Your task to perform on an android device: Add usb-a to the cart on target.com Image 0: 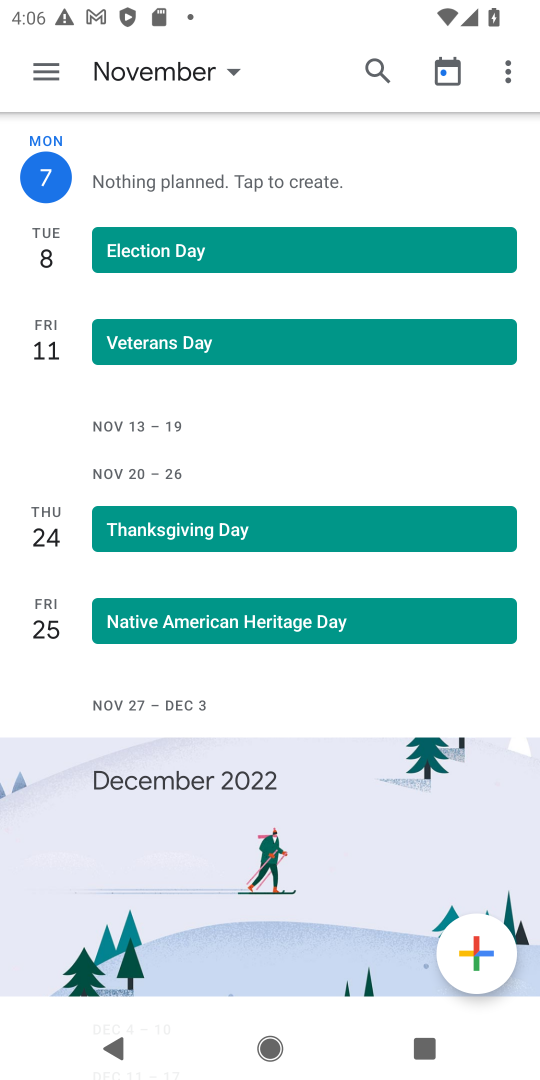
Step 0: press home button
Your task to perform on an android device: Add usb-a to the cart on target.com Image 1: 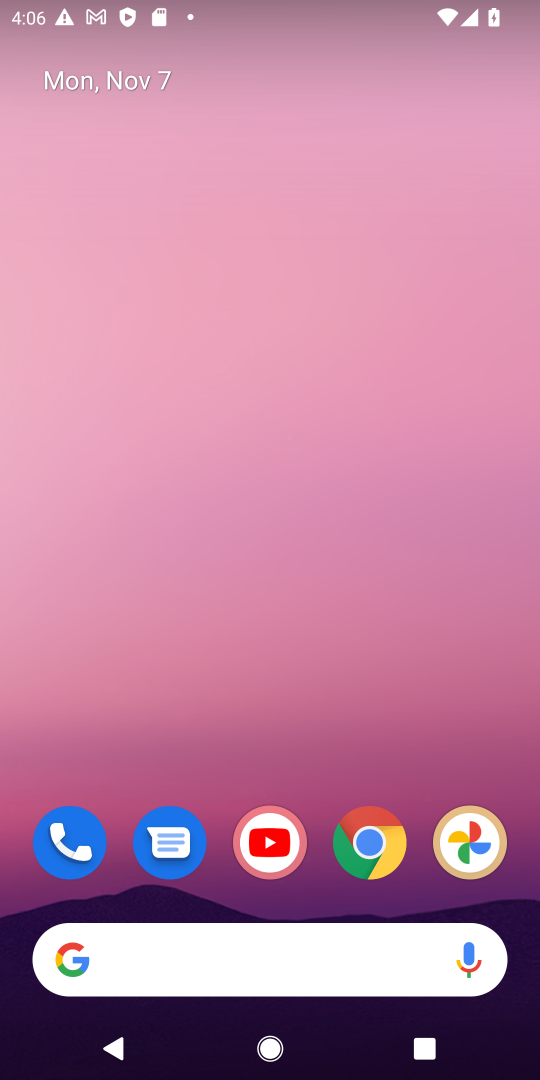
Step 1: drag from (248, 926) to (277, 60)
Your task to perform on an android device: Add usb-a to the cart on target.com Image 2: 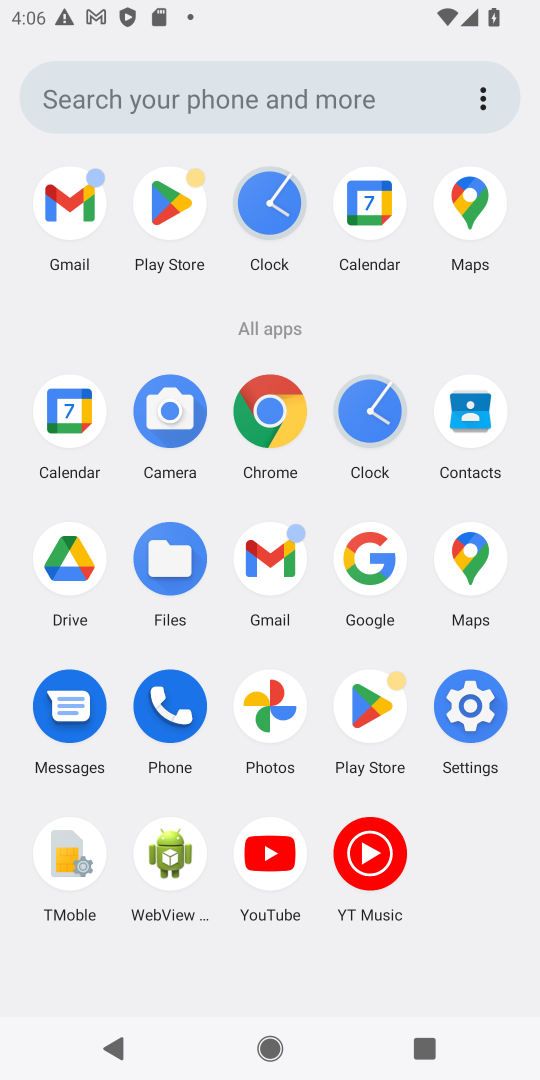
Step 2: click (283, 425)
Your task to perform on an android device: Add usb-a to the cart on target.com Image 3: 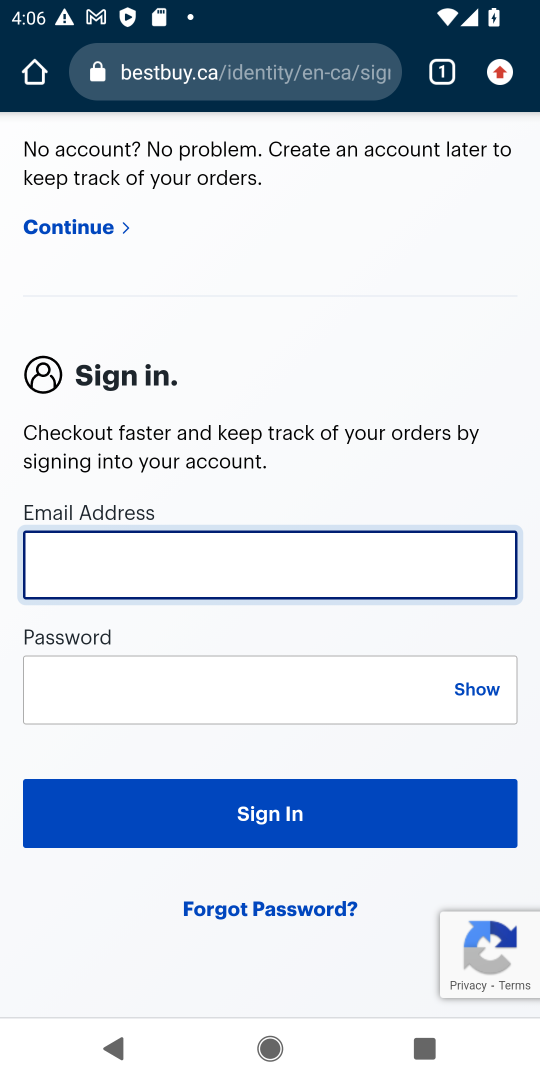
Step 3: click (213, 72)
Your task to perform on an android device: Add usb-a to the cart on target.com Image 4: 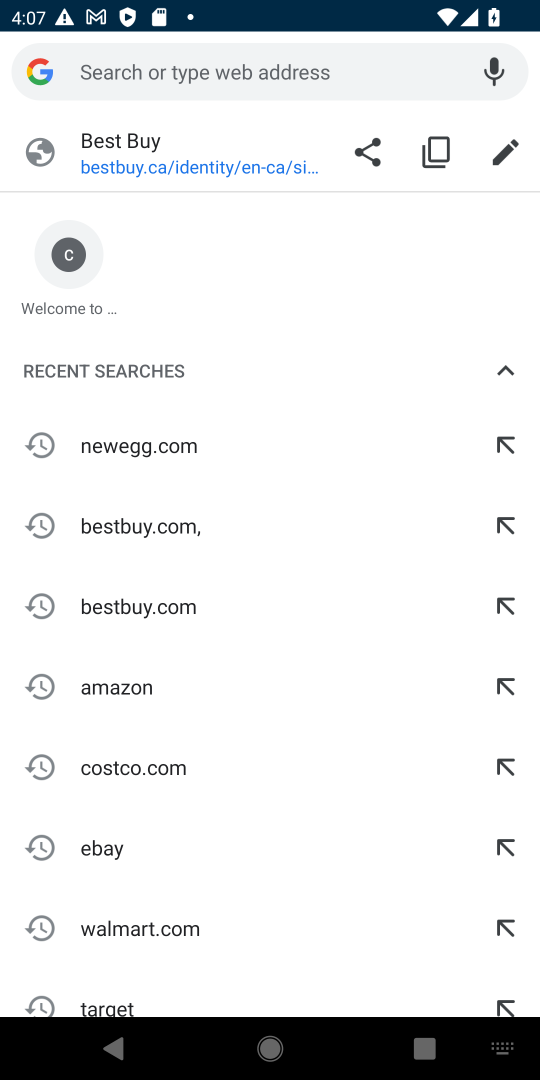
Step 4: type "target.com"
Your task to perform on an android device: Add usb-a to the cart on target.com Image 5: 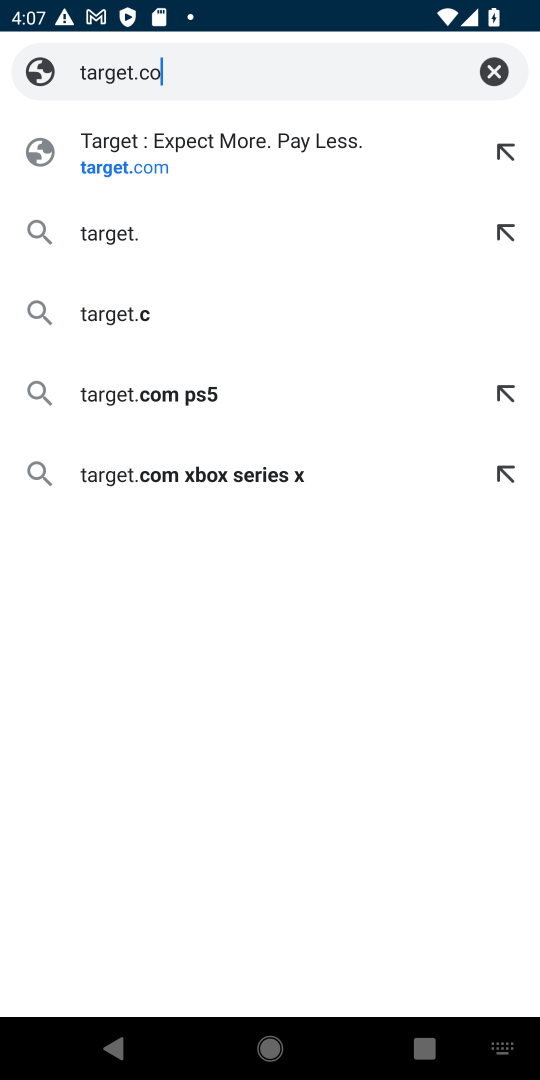
Step 5: press enter
Your task to perform on an android device: Add usb-a to the cart on target.com Image 6: 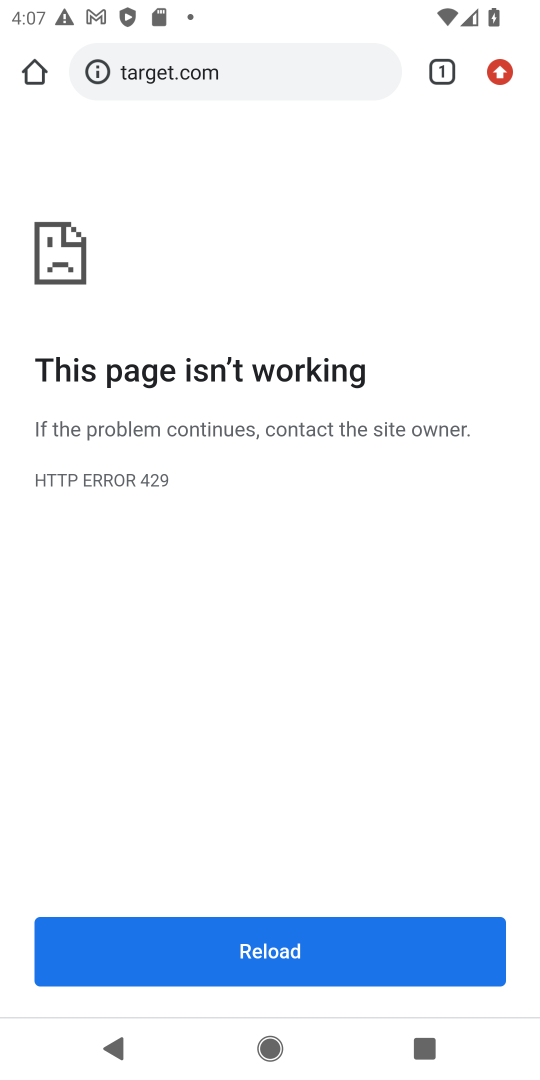
Step 6: click (282, 956)
Your task to perform on an android device: Add usb-a to the cart on target.com Image 7: 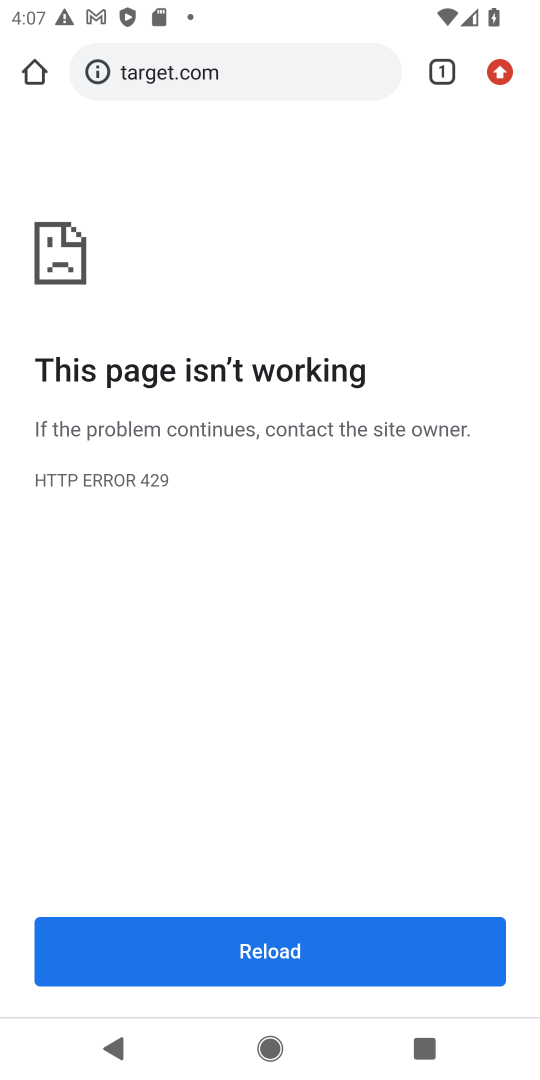
Step 7: click (290, 951)
Your task to perform on an android device: Add usb-a to the cart on target.com Image 8: 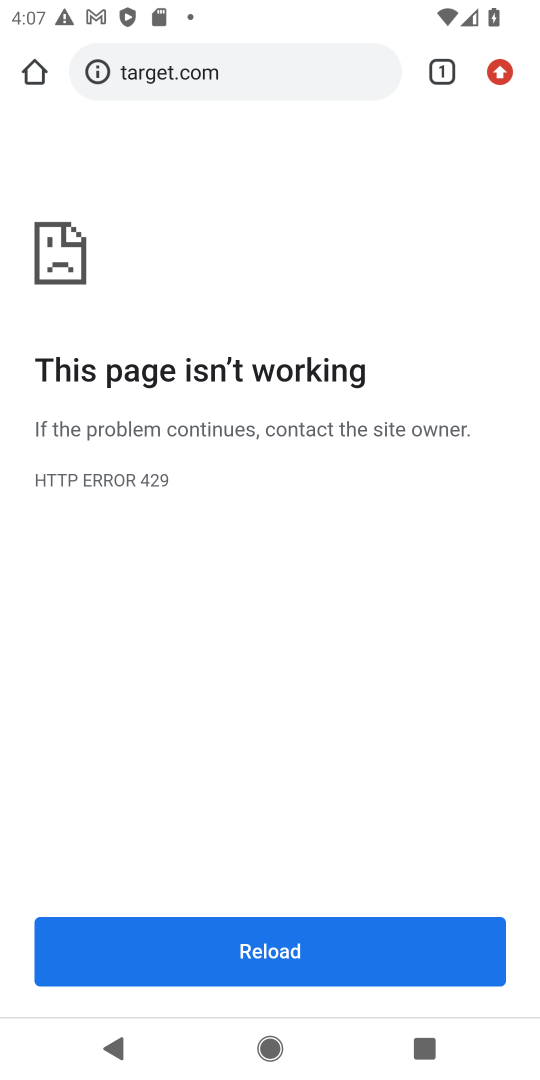
Step 8: click (291, 950)
Your task to perform on an android device: Add usb-a to the cart on target.com Image 9: 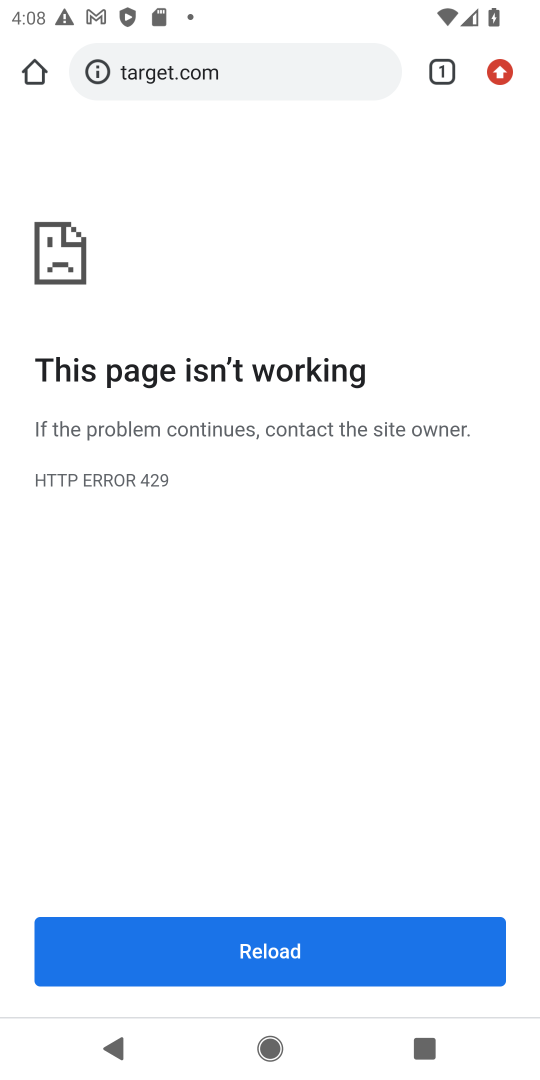
Step 9: press back button
Your task to perform on an android device: Add usb-a to the cart on target.com Image 10: 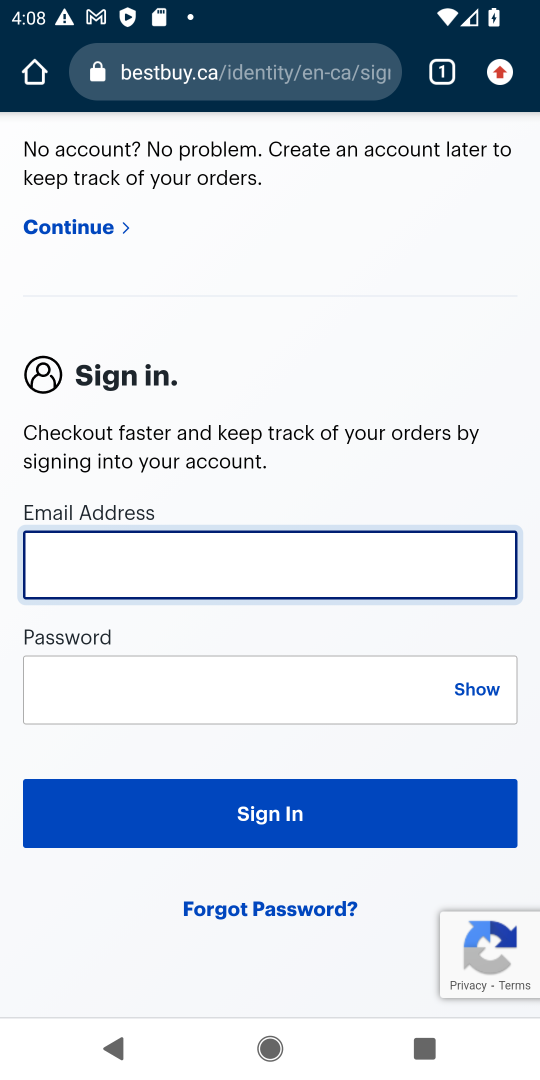
Step 10: click (203, 71)
Your task to perform on an android device: Add usb-a to the cart on target.com Image 11: 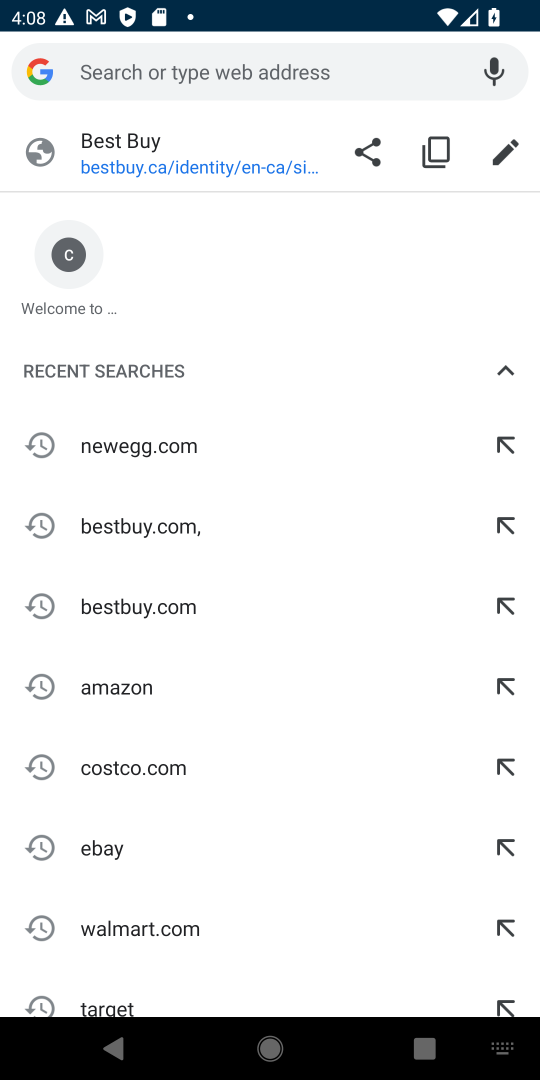
Step 11: type "target.com"
Your task to perform on an android device: Add usb-a to the cart on target.com Image 12: 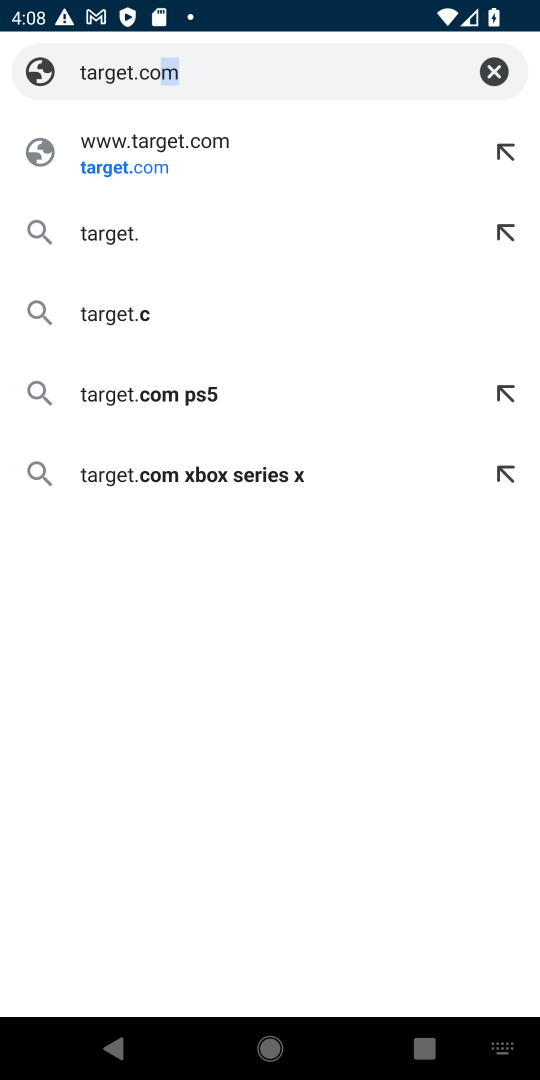
Step 12: press enter
Your task to perform on an android device: Add usb-a to the cart on target.com Image 13: 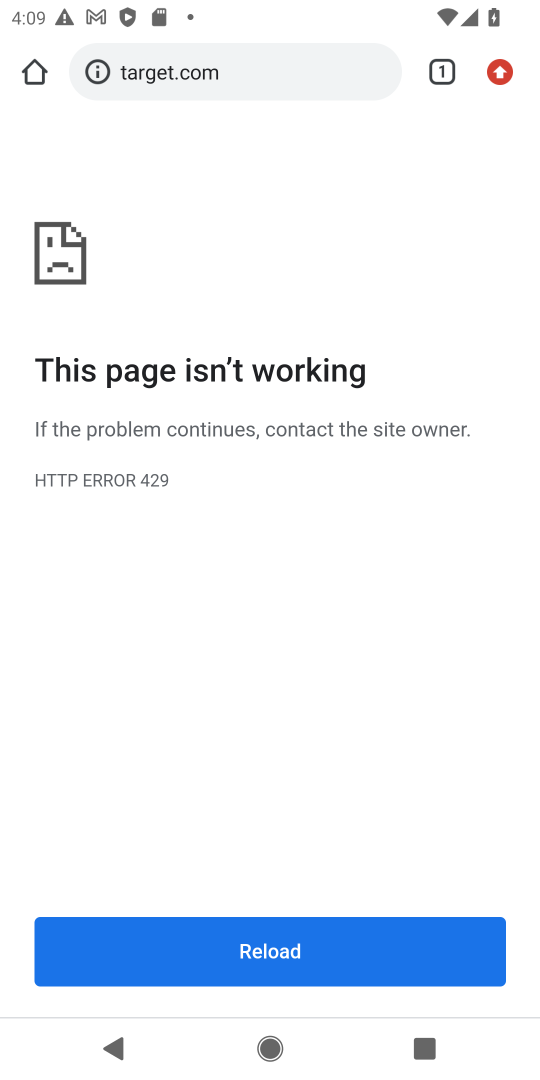
Step 13: task complete